Your task to perform on an android device: Turn off the flashlight Image 0: 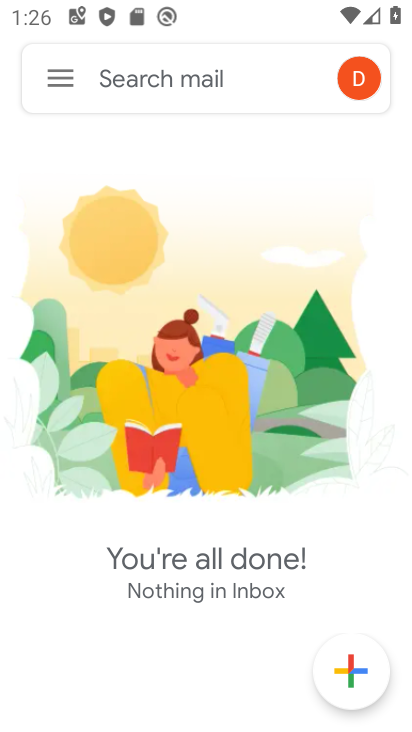
Step 0: press home button
Your task to perform on an android device: Turn off the flashlight Image 1: 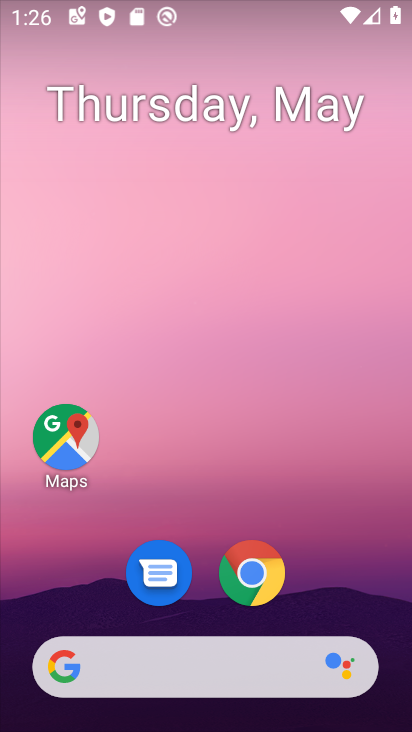
Step 1: task complete